Your task to perform on an android device: check the backup settings in the google photos Image 0: 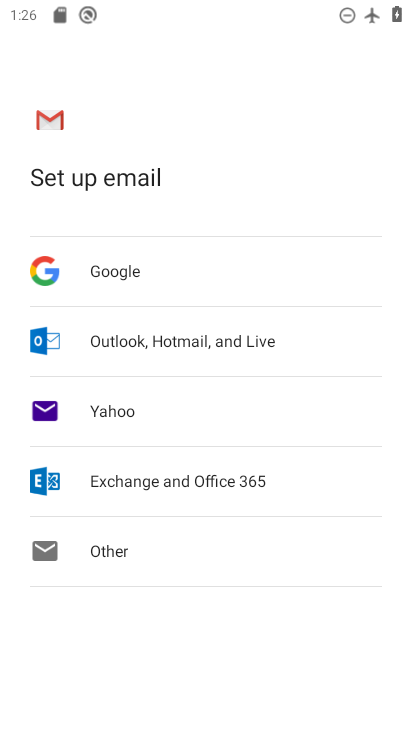
Step 0: press home button
Your task to perform on an android device: check the backup settings in the google photos Image 1: 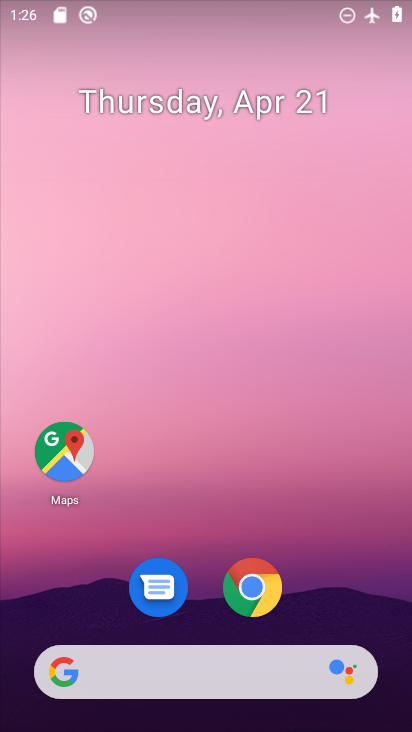
Step 1: drag from (306, 571) to (275, 150)
Your task to perform on an android device: check the backup settings in the google photos Image 2: 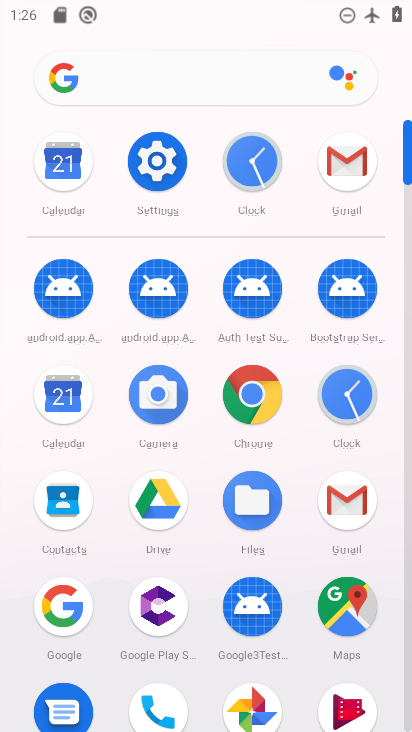
Step 2: drag from (213, 532) to (214, 150)
Your task to perform on an android device: check the backup settings in the google photos Image 3: 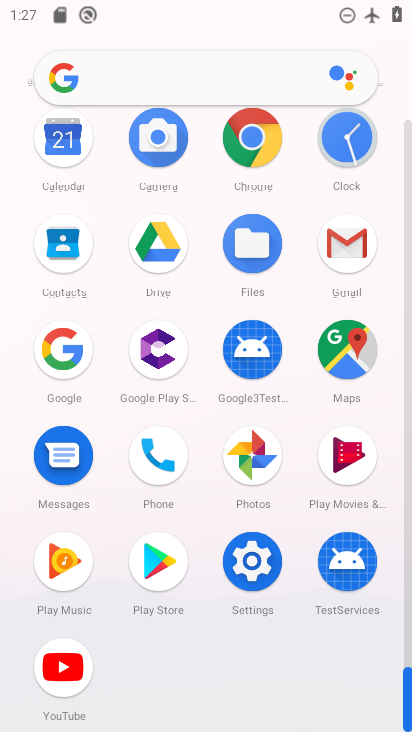
Step 3: click (249, 456)
Your task to perform on an android device: check the backup settings in the google photos Image 4: 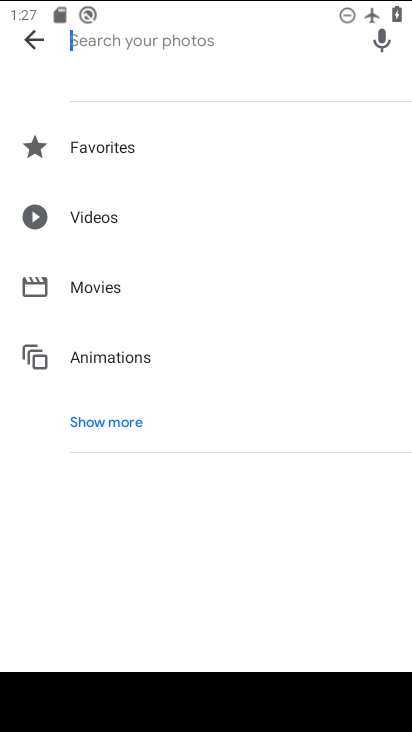
Step 4: click (34, 35)
Your task to perform on an android device: check the backup settings in the google photos Image 5: 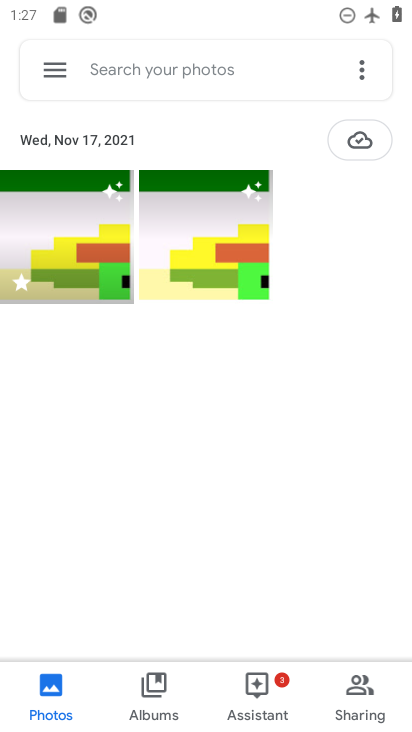
Step 5: click (48, 69)
Your task to perform on an android device: check the backup settings in the google photos Image 6: 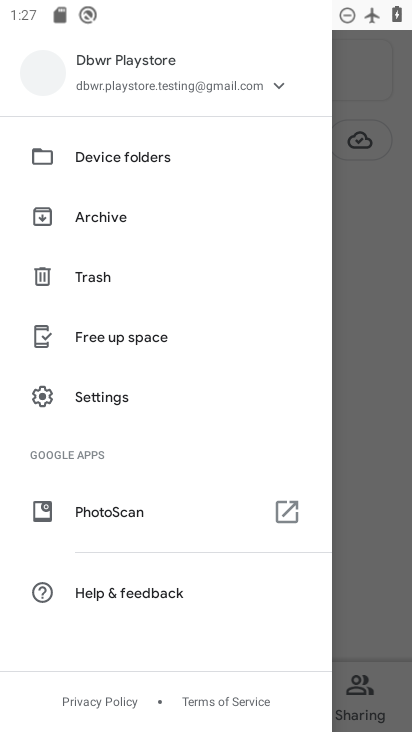
Step 6: click (111, 399)
Your task to perform on an android device: check the backup settings in the google photos Image 7: 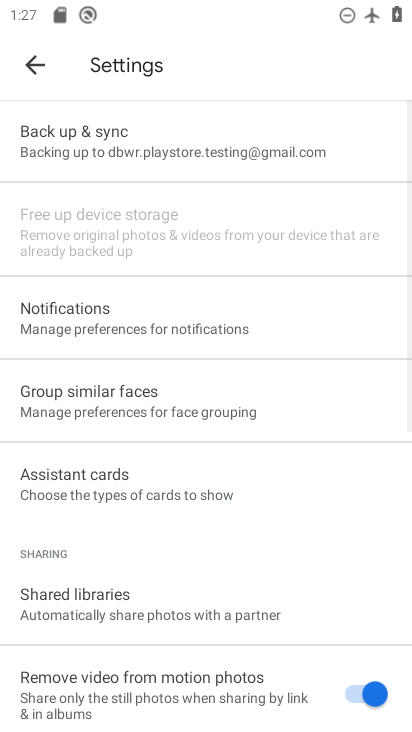
Step 7: click (84, 144)
Your task to perform on an android device: check the backup settings in the google photos Image 8: 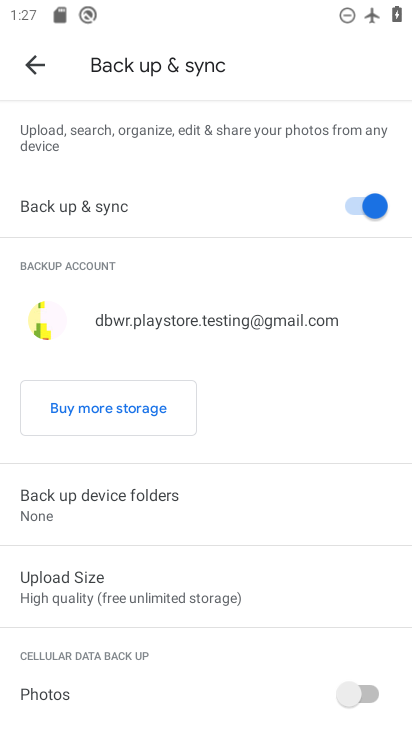
Step 8: task complete